Your task to perform on an android device: toggle wifi Image 0: 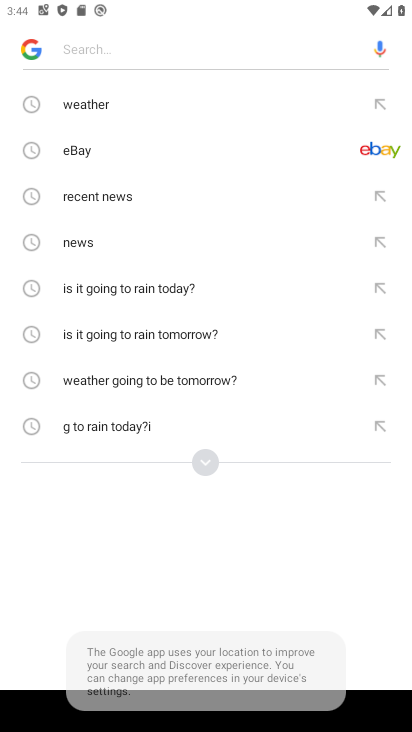
Step 0: press home button
Your task to perform on an android device: toggle wifi Image 1: 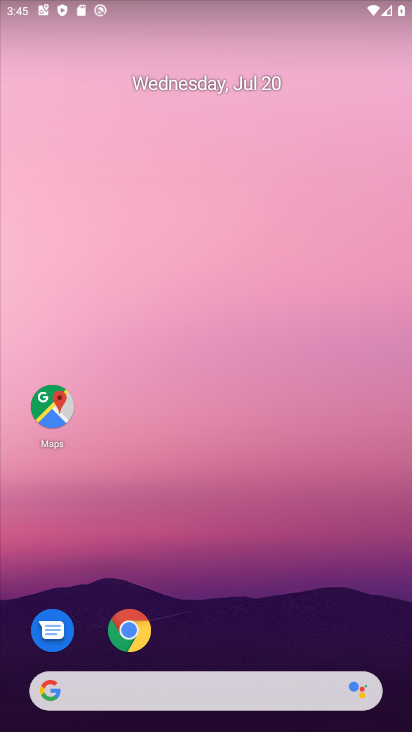
Step 1: drag from (40, 635) to (181, 222)
Your task to perform on an android device: toggle wifi Image 2: 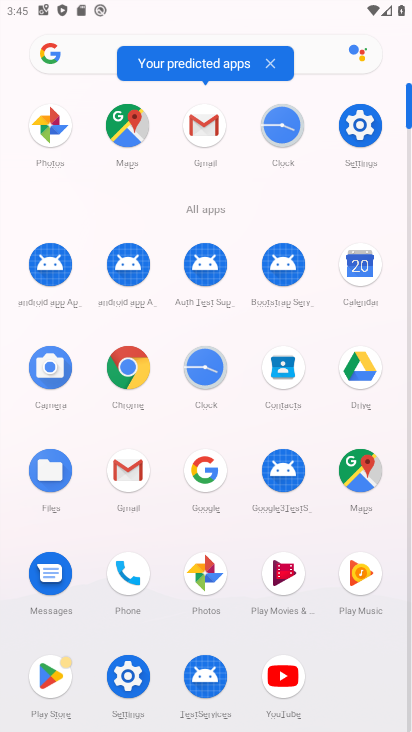
Step 2: click (128, 692)
Your task to perform on an android device: toggle wifi Image 3: 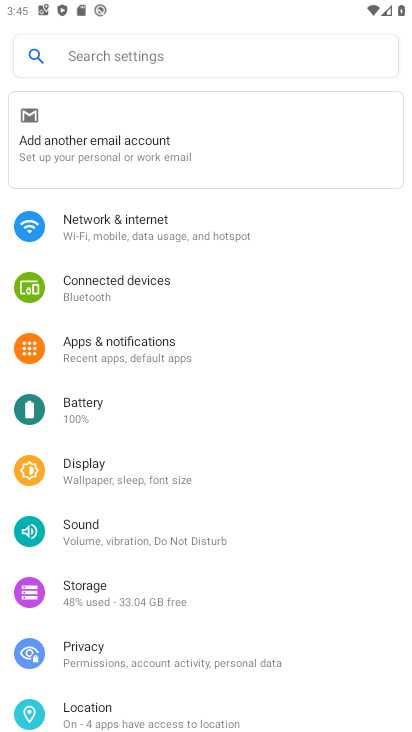
Step 3: click (134, 216)
Your task to perform on an android device: toggle wifi Image 4: 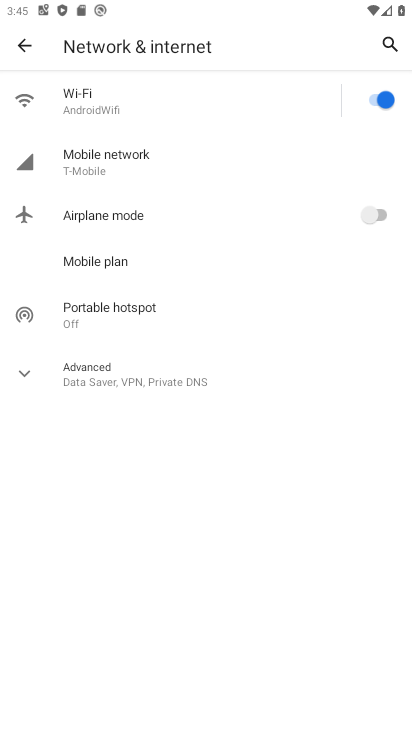
Step 4: task complete